Your task to perform on an android device: Open eBay Image 0: 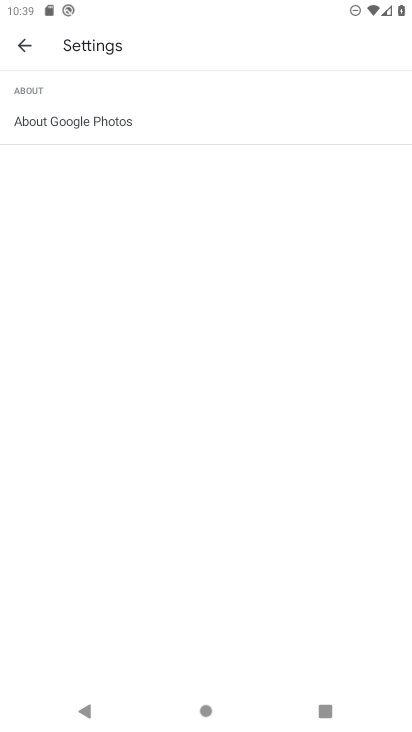
Step 0: press home button
Your task to perform on an android device: Open eBay Image 1: 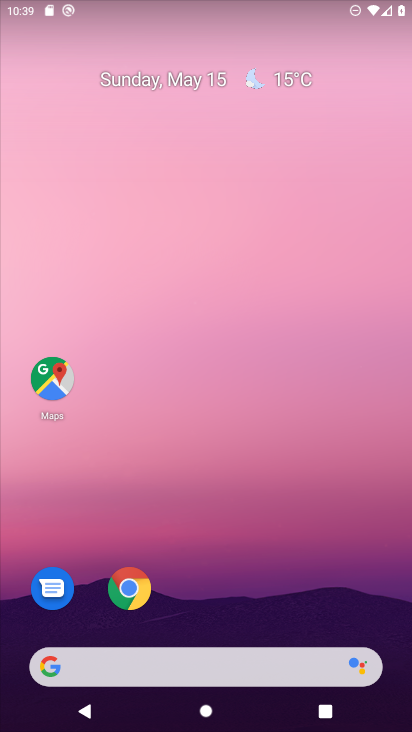
Step 1: click (135, 590)
Your task to perform on an android device: Open eBay Image 2: 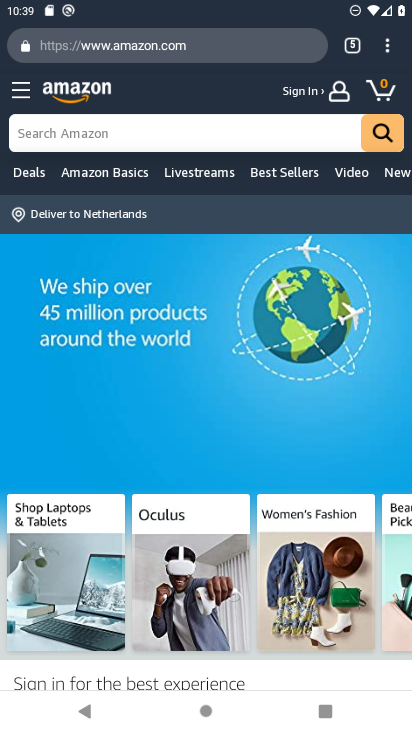
Step 2: click (161, 47)
Your task to perform on an android device: Open eBay Image 3: 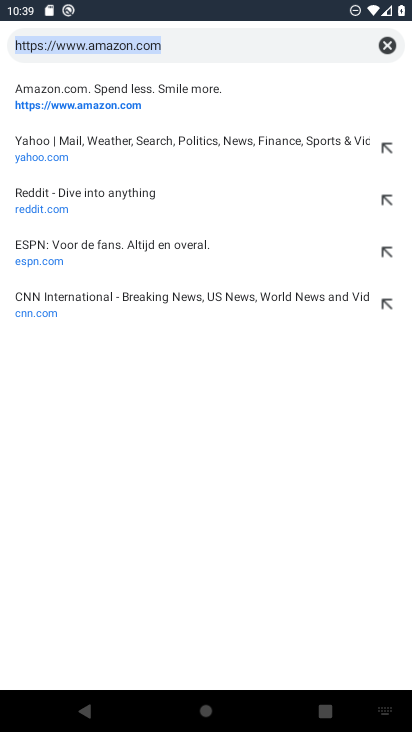
Step 3: type "eBay"
Your task to perform on an android device: Open eBay Image 4: 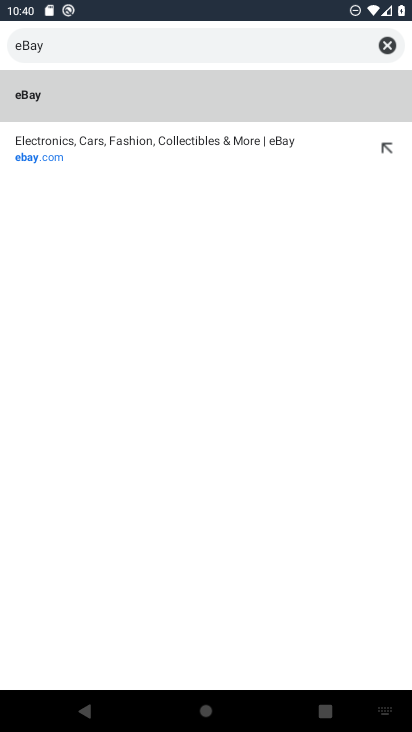
Step 4: click (72, 99)
Your task to perform on an android device: Open eBay Image 5: 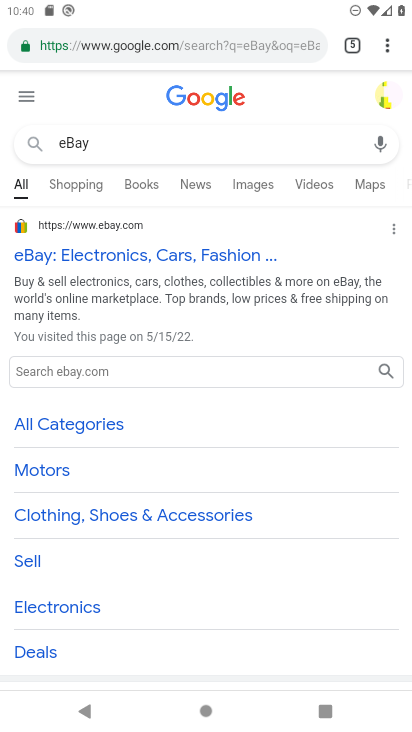
Step 5: task complete